Your task to perform on an android device: refresh tabs in the chrome app Image 0: 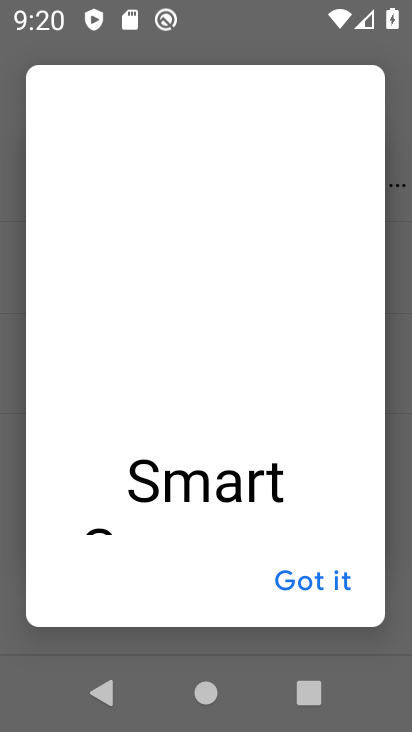
Step 0: press home button
Your task to perform on an android device: refresh tabs in the chrome app Image 1: 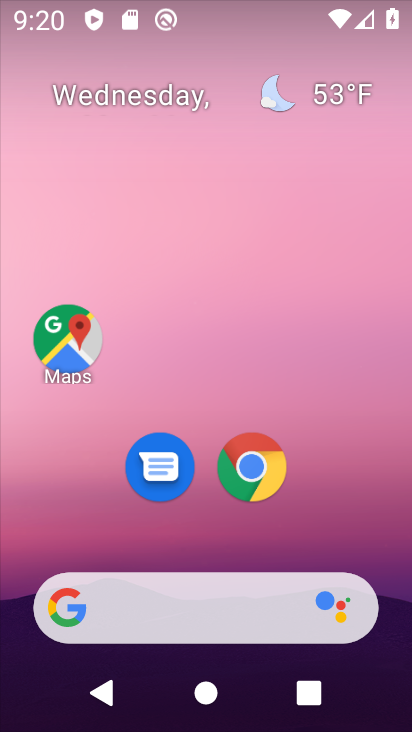
Step 1: click (243, 482)
Your task to perform on an android device: refresh tabs in the chrome app Image 2: 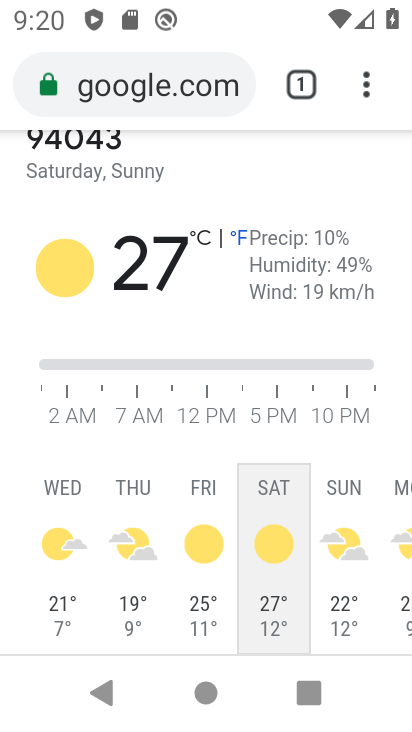
Step 2: click (359, 88)
Your task to perform on an android device: refresh tabs in the chrome app Image 3: 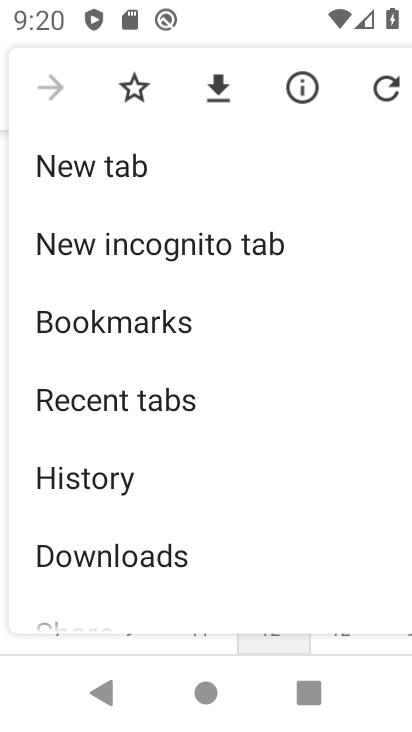
Step 3: click (381, 91)
Your task to perform on an android device: refresh tabs in the chrome app Image 4: 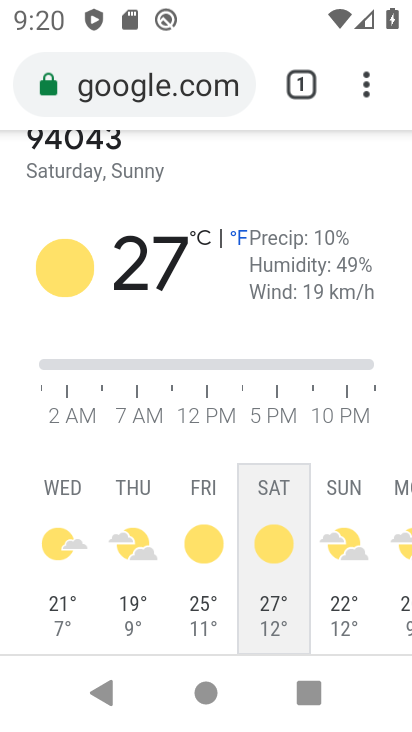
Step 4: task complete